Your task to perform on an android device: Empty the shopping cart on target. Image 0: 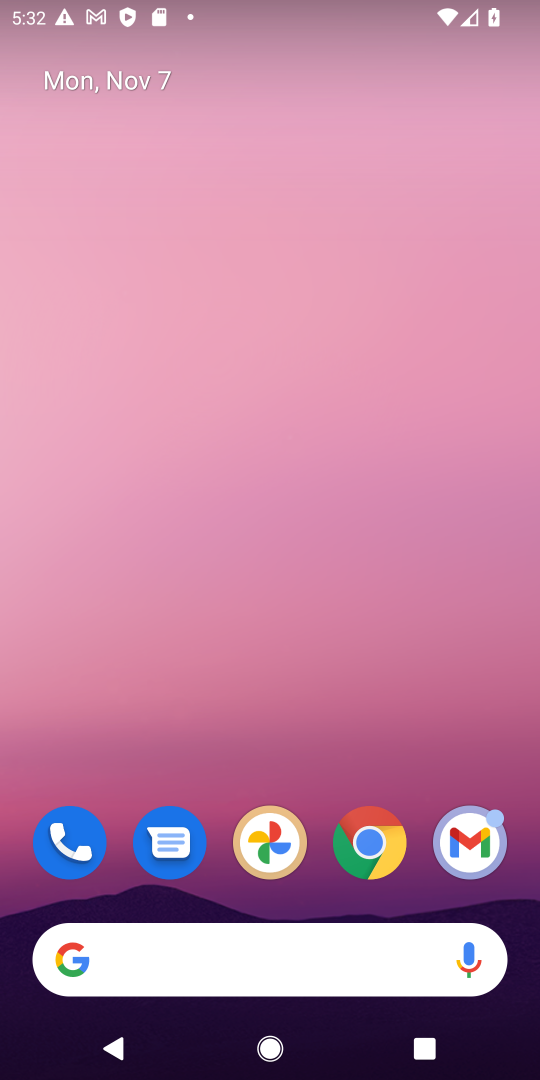
Step 0: drag from (257, 691) to (176, 107)
Your task to perform on an android device: Empty the shopping cart on target. Image 1: 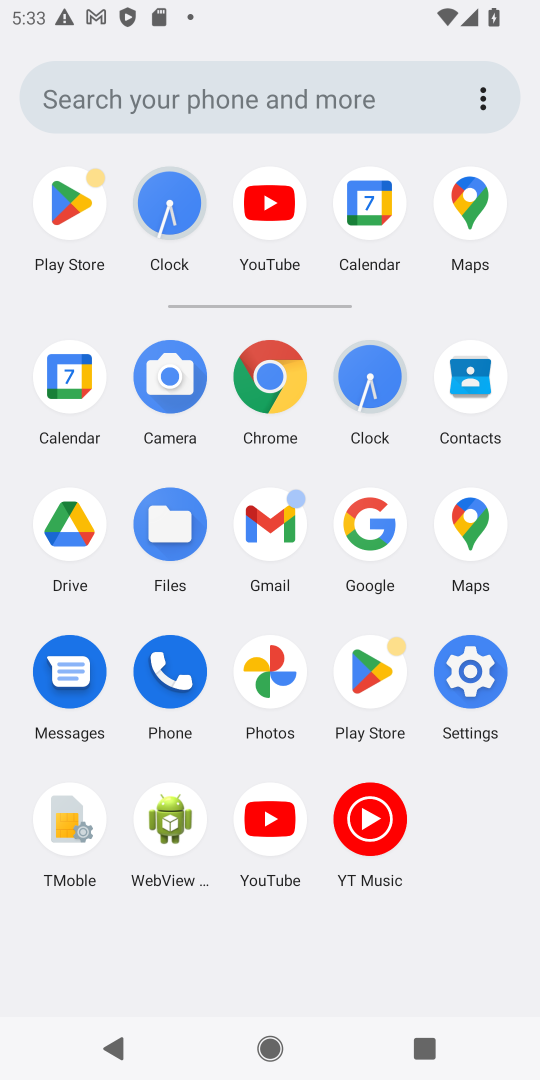
Step 1: click (250, 376)
Your task to perform on an android device: Empty the shopping cart on target. Image 2: 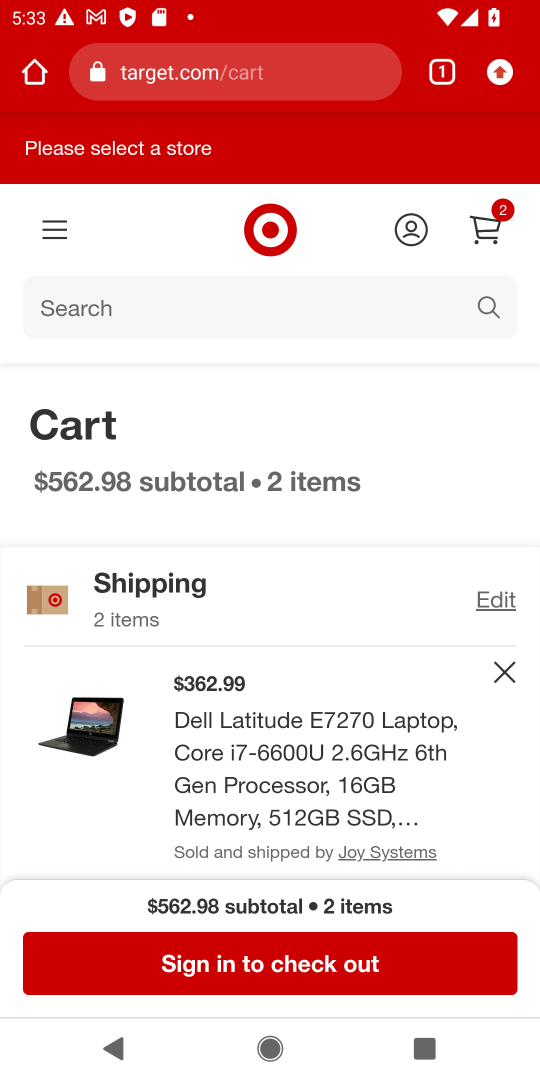
Step 2: click (495, 225)
Your task to perform on an android device: Empty the shopping cart on target. Image 3: 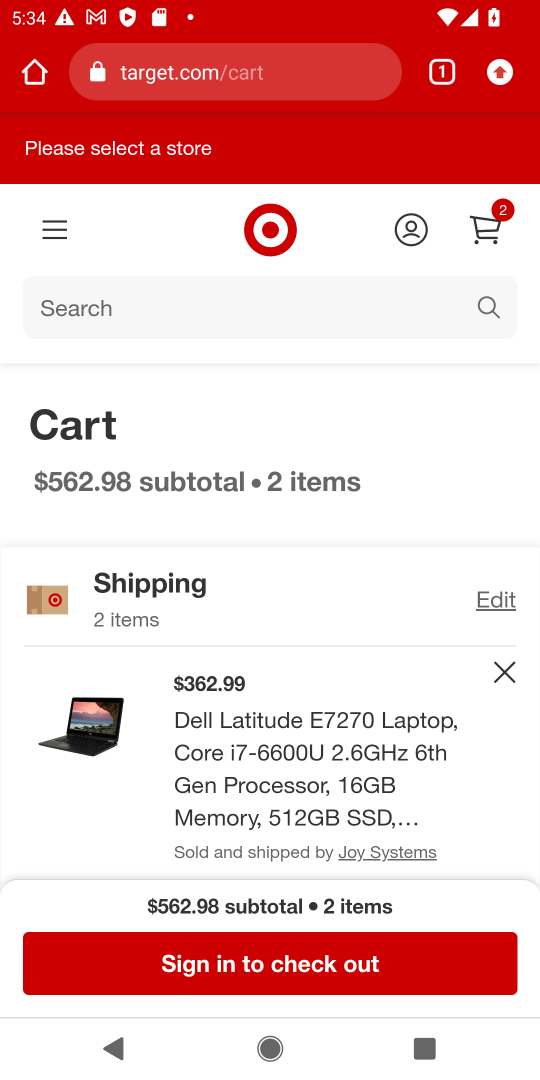
Step 3: drag from (238, 576) to (267, 230)
Your task to perform on an android device: Empty the shopping cart on target. Image 4: 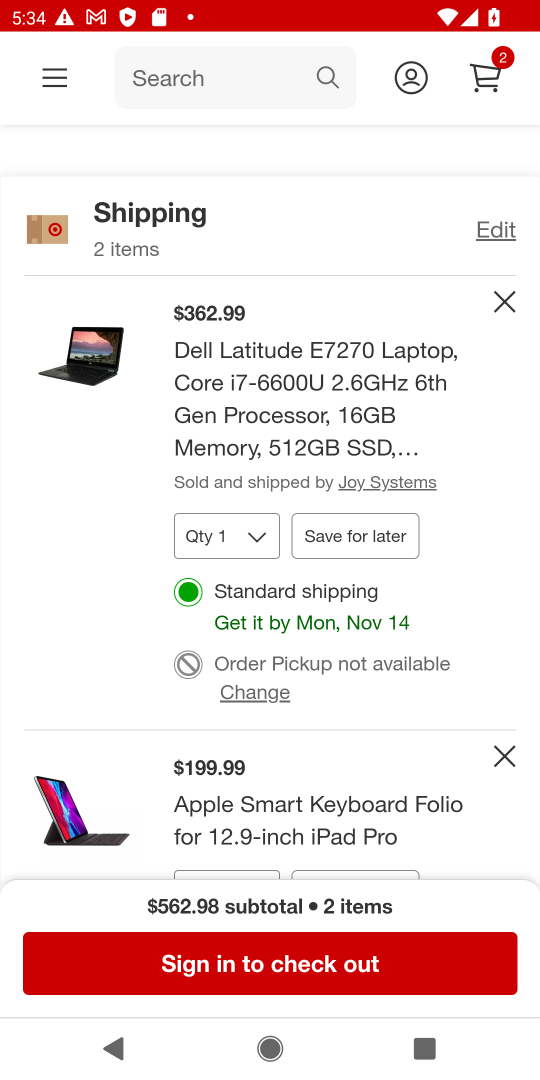
Step 4: click (501, 293)
Your task to perform on an android device: Empty the shopping cart on target. Image 5: 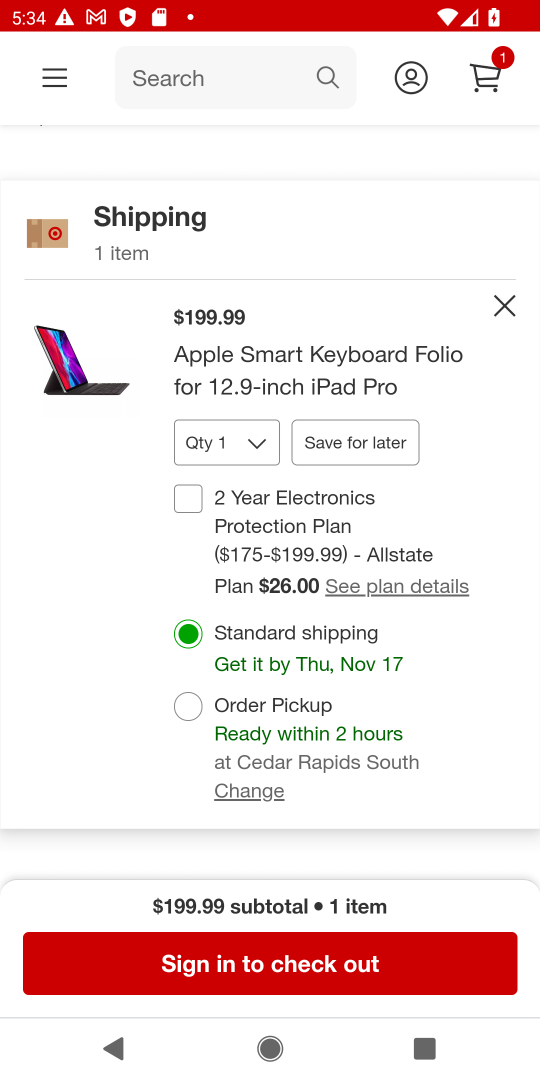
Step 5: click (503, 304)
Your task to perform on an android device: Empty the shopping cart on target. Image 6: 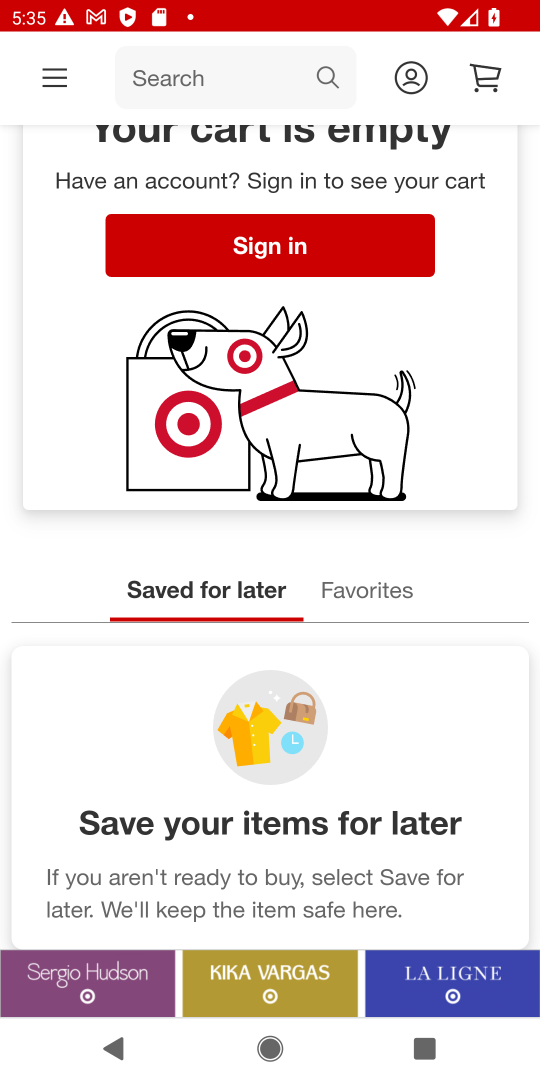
Step 6: task complete